Your task to perform on an android device: turn on improve location accuracy Image 0: 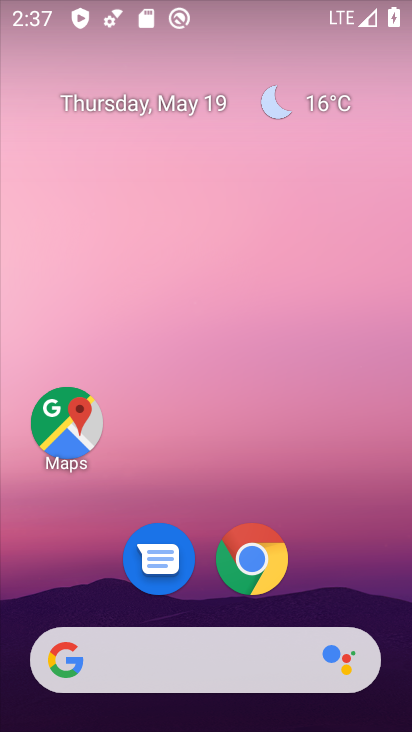
Step 0: drag from (194, 599) to (192, 228)
Your task to perform on an android device: turn on improve location accuracy Image 1: 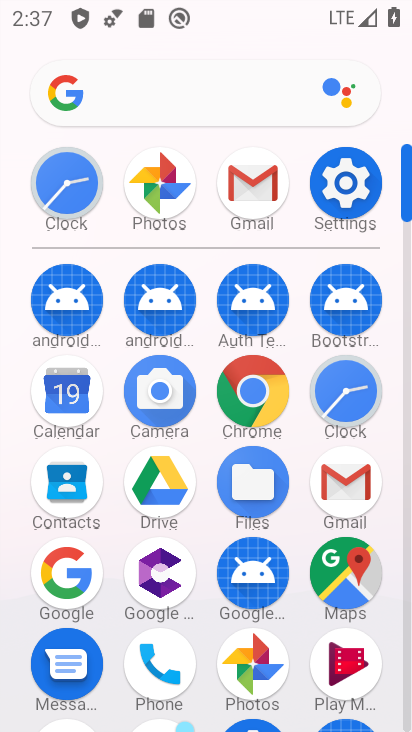
Step 1: click (342, 184)
Your task to perform on an android device: turn on improve location accuracy Image 2: 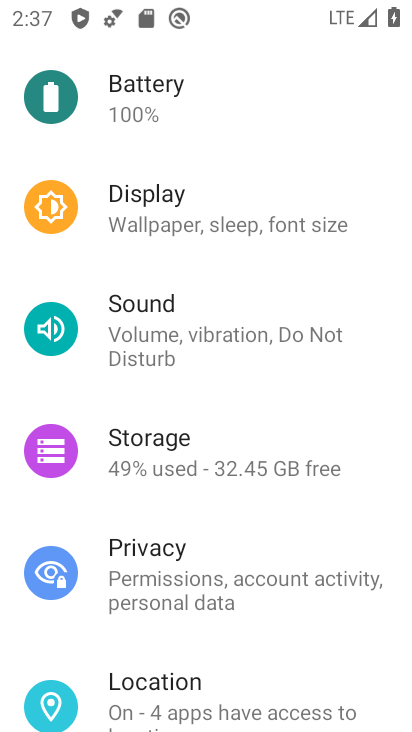
Step 2: click (213, 688)
Your task to perform on an android device: turn on improve location accuracy Image 3: 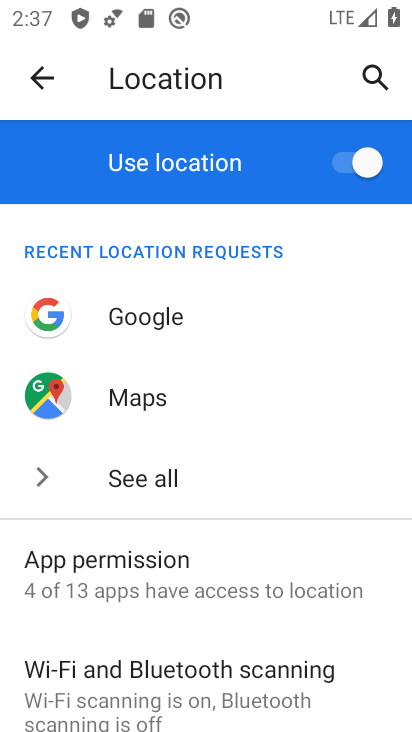
Step 3: drag from (233, 563) to (230, 331)
Your task to perform on an android device: turn on improve location accuracy Image 4: 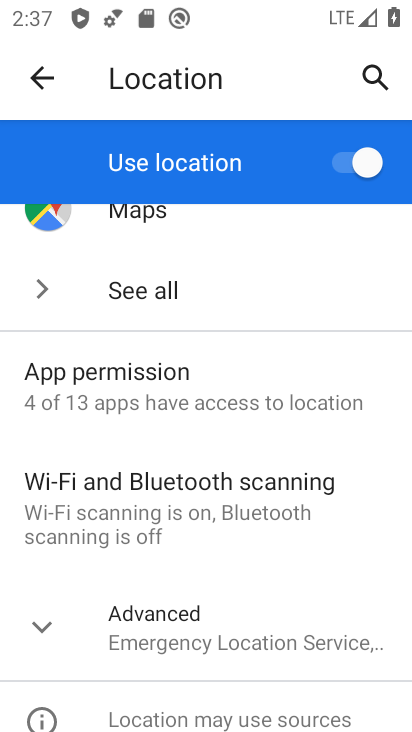
Step 4: click (204, 620)
Your task to perform on an android device: turn on improve location accuracy Image 5: 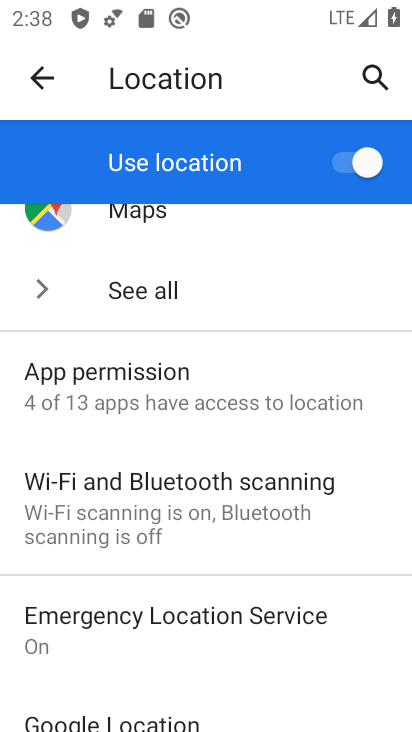
Step 5: drag from (169, 679) to (184, 413)
Your task to perform on an android device: turn on improve location accuracy Image 6: 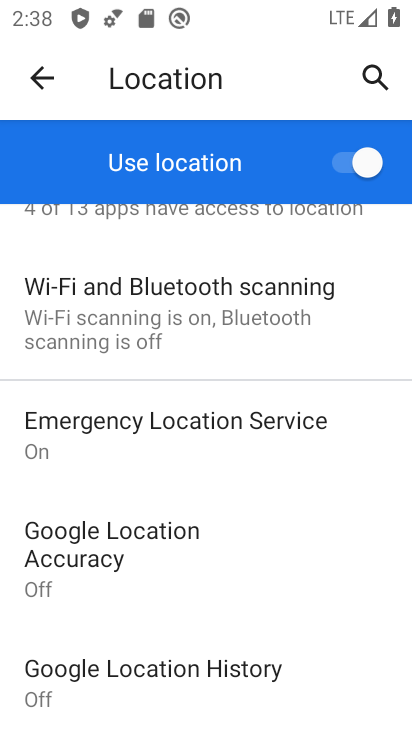
Step 6: drag from (181, 629) to (178, 411)
Your task to perform on an android device: turn on improve location accuracy Image 7: 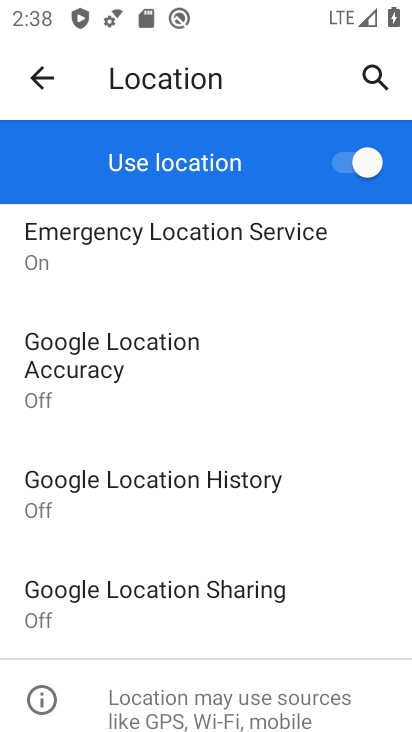
Step 7: click (168, 379)
Your task to perform on an android device: turn on improve location accuracy Image 8: 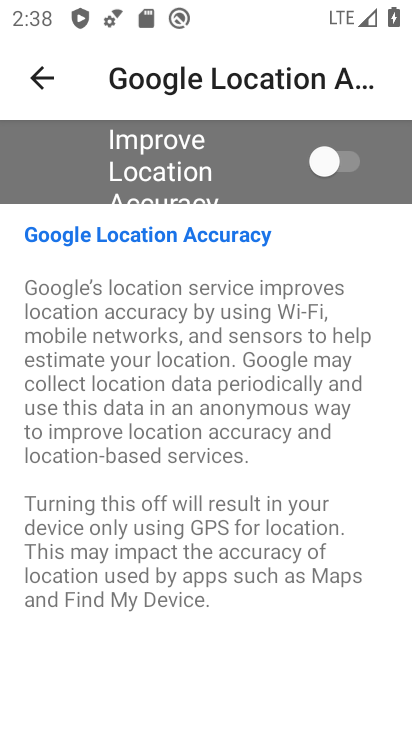
Step 8: click (348, 158)
Your task to perform on an android device: turn on improve location accuracy Image 9: 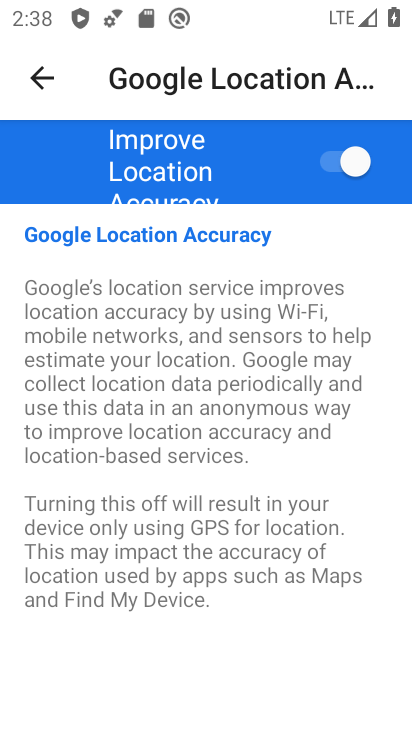
Step 9: task complete